Your task to perform on an android device: Open wifi settings Image 0: 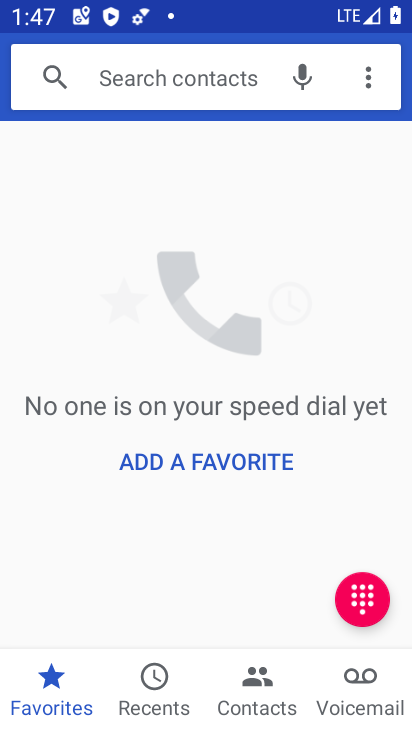
Step 0: press home button
Your task to perform on an android device: Open wifi settings Image 1: 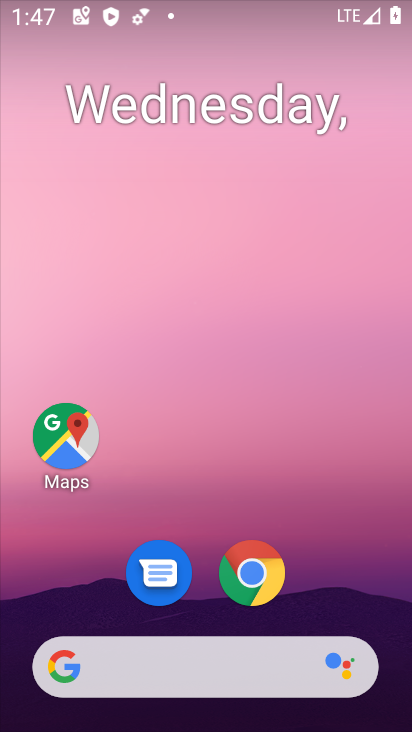
Step 1: drag from (196, 580) to (223, 107)
Your task to perform on an android device: Open wifi settings Image 2: 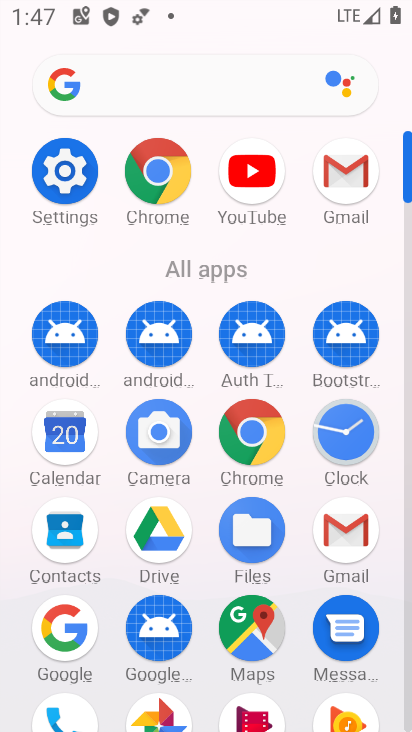
Step 2: click (74, 163)
Your task to perform on an android device: Open wifi settings Image 3: 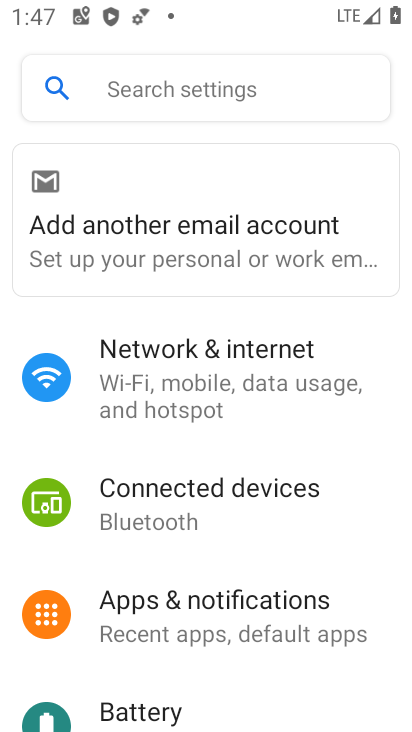
Step 3: click (203, 354)
Your task to perform on an android device: Open wifi settings Image 4: 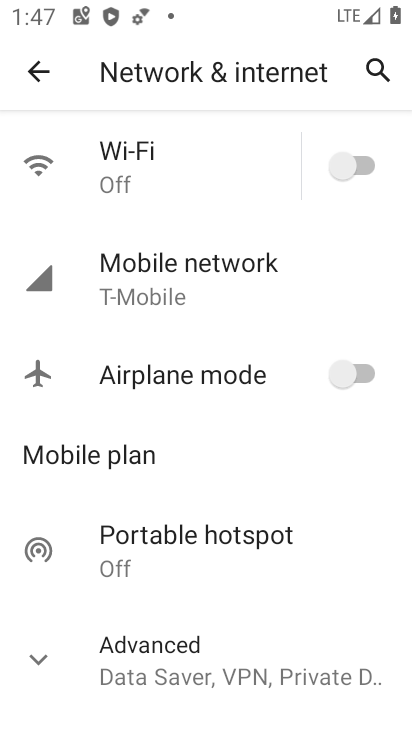
Step 4: click (332, 166)
Your task to perform on an android device: Open wifi settings Image 5: 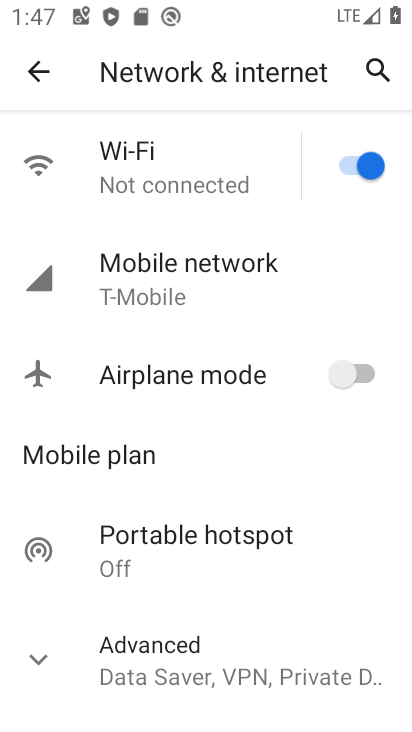
Step 5: click (206, 171)
Your task to perform on an android device: Open wifi settings Image 6: 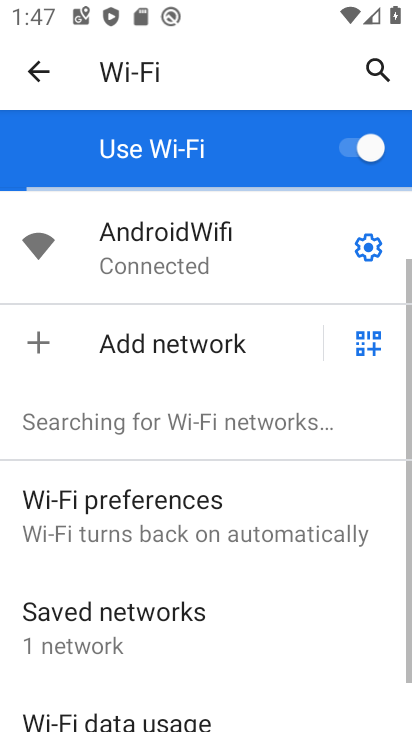
Step 6: click (372, 263)
Your task to perform on an android device: Open wifi settings Image 7: 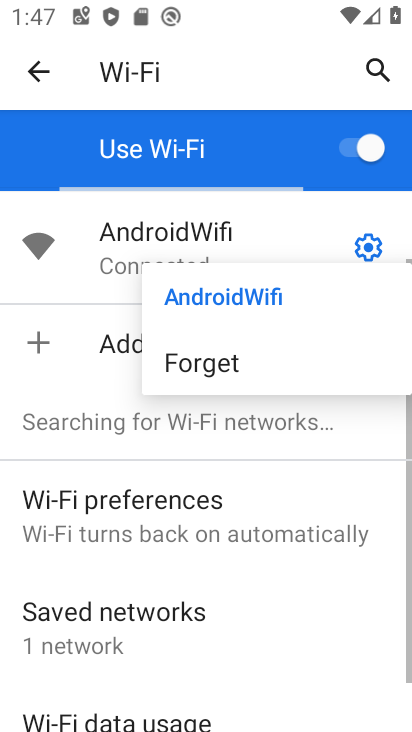
Step 7: click (324, 220)
Your task to perform on an android device: Open wifi settings Image 8: 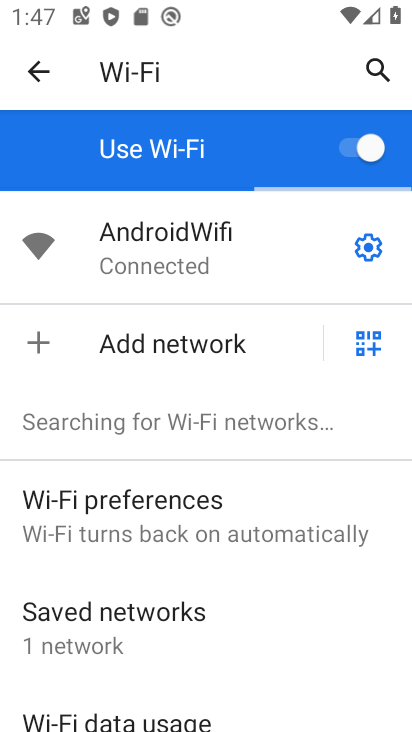
Step 8: click (367, 249)
Your task to perform on an android device: Open wifi settings Image 9: 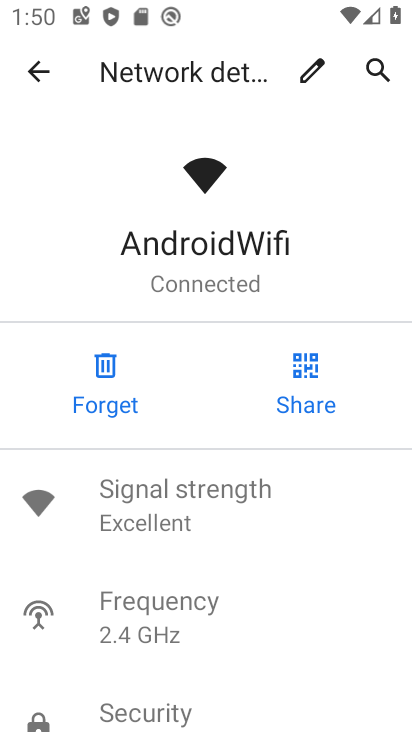
Step 9: task complete